Your task to perform on an android device: Do I have any events today? Image 0: 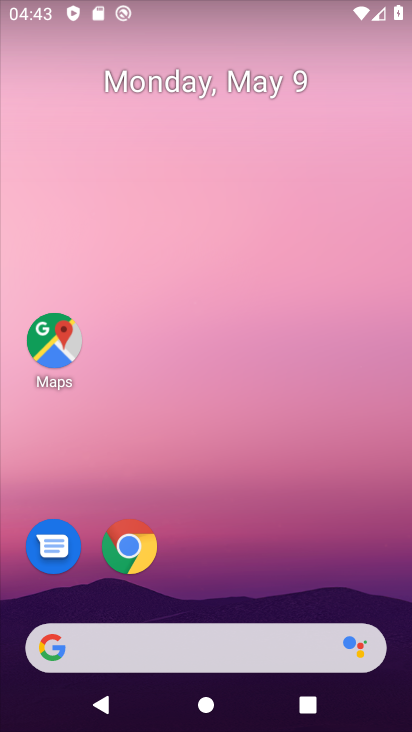
Step 0: drag from (243, 622) to (284, 190)
Your task to perform on an android device: Do I have any events today? Image 1: 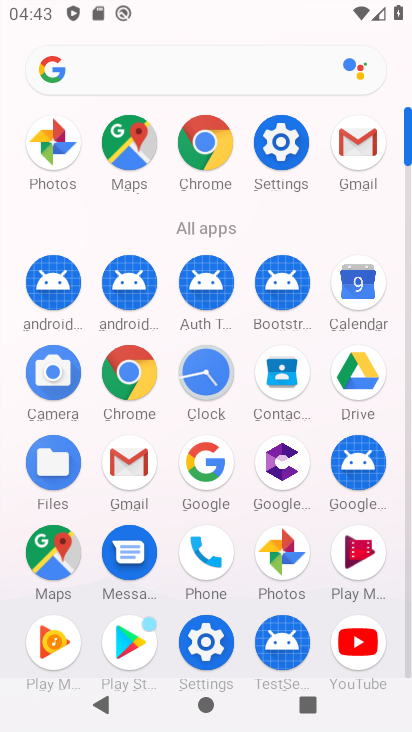
Step 1: click (360, 292)
Your task to perform on an android device: Do I have any events today? Image 2: 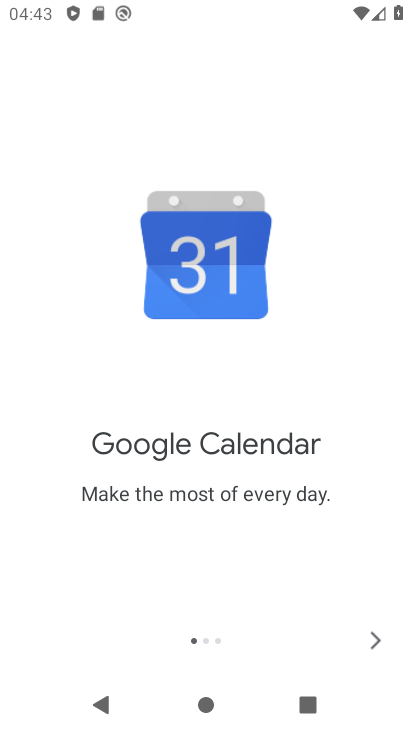
Step 2: click (366, 627)
Your task to perform on an android device: Do I have any events today? Image 3: 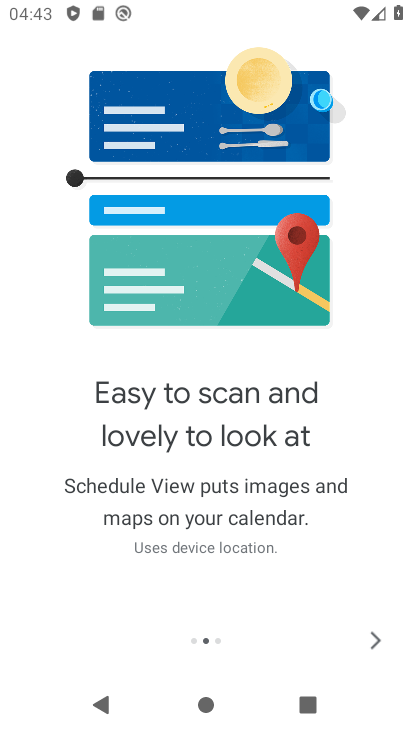
Step 3: click (367, 627)
Your task to perform on an android device: Do I have any events today? Image 4: 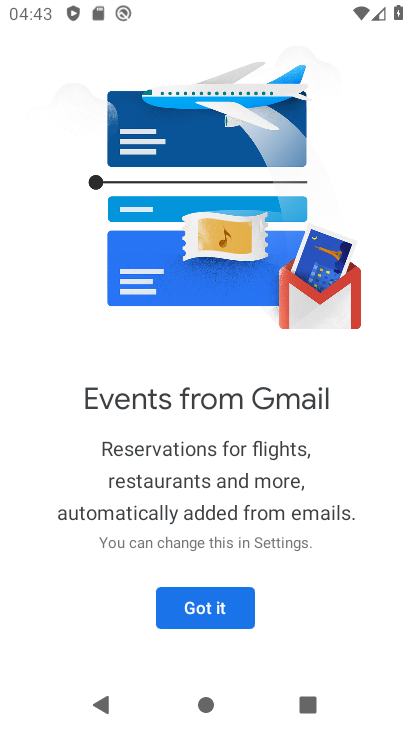
Step 4: click (367, 629)
Your task to perform on an android device: Do I have any events today? Image 5: 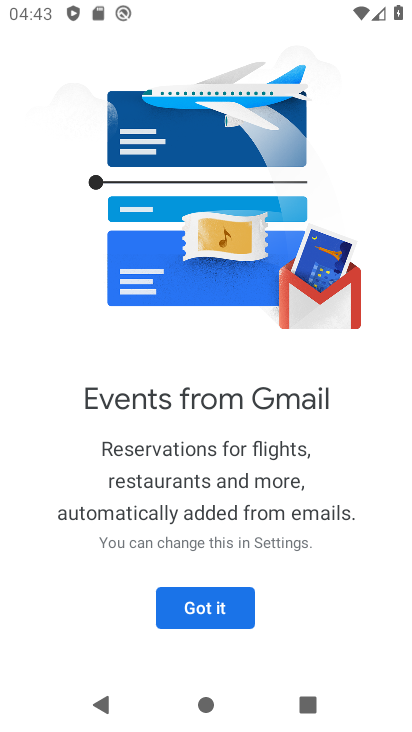
Step 5: click (203, 607)
Your task to perform on an android device: Do I have any events today? Image 6: 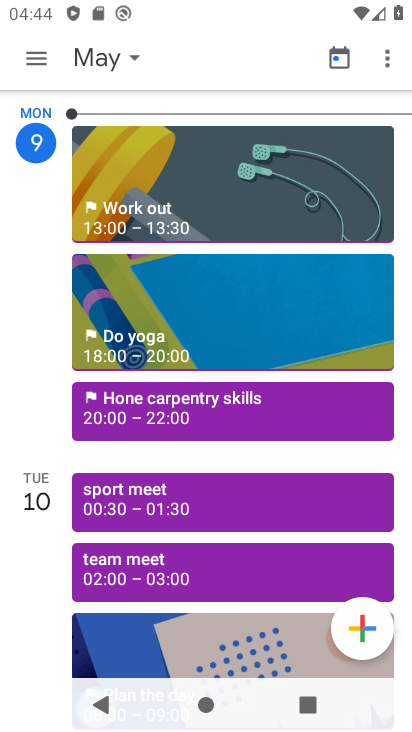
Step 6: click (37, 64)
Your task to perform on an android device: Do I have any events today? Image 7: 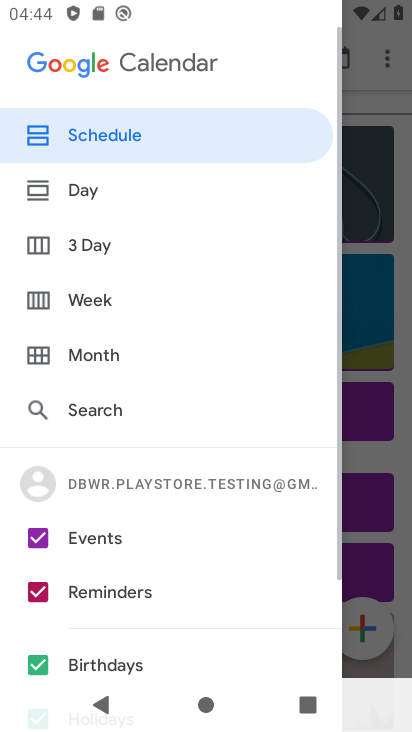
Step 7: drag from (150, 551) to (197, 246)
Your task to perform on an android device: Do I have any events today? Image 8: 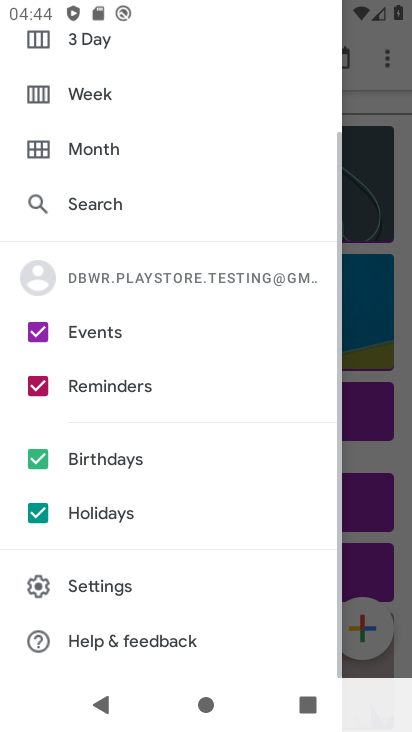
Step 8: click (77, 381)
Your task to perform on an android device: Do I have any events today? Image 9: 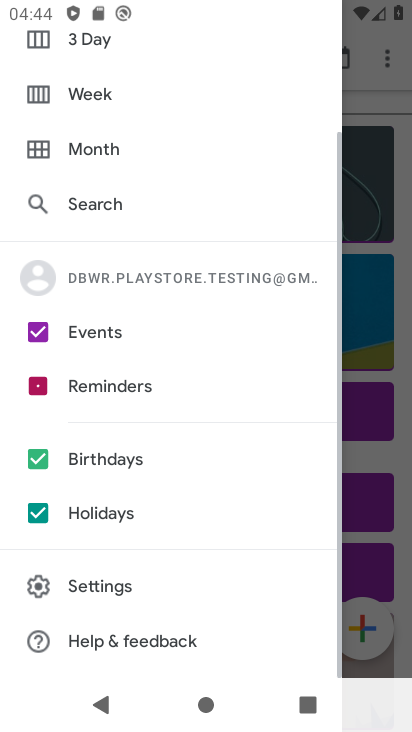
Step 9: click (76, 465)
Your task to perform on an android device: Do I have any events today? Image 10: 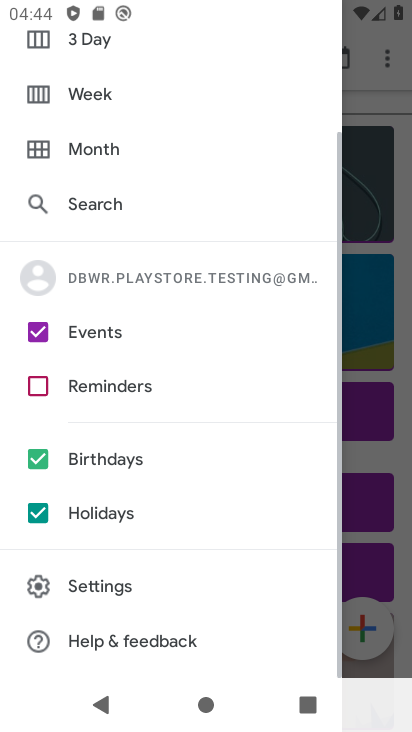
Step 10: click (71, 501)
Your task to perform on an android device: Do I have any events today? Image 11: 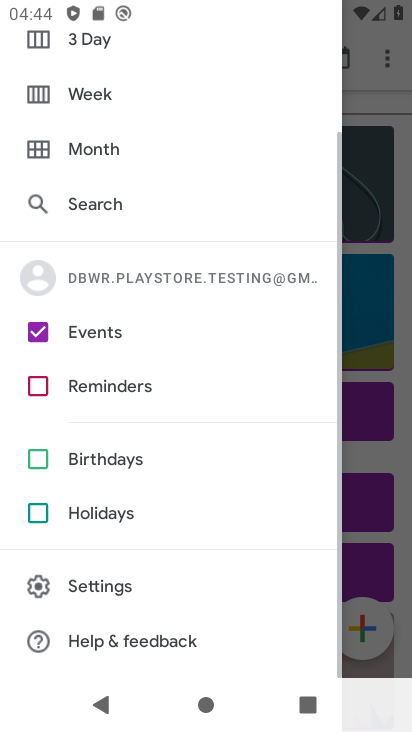
Step 11: drag from (214, 295) to (211, 574)
Your task to perform on an android device: Do I have any events today? Image 12: 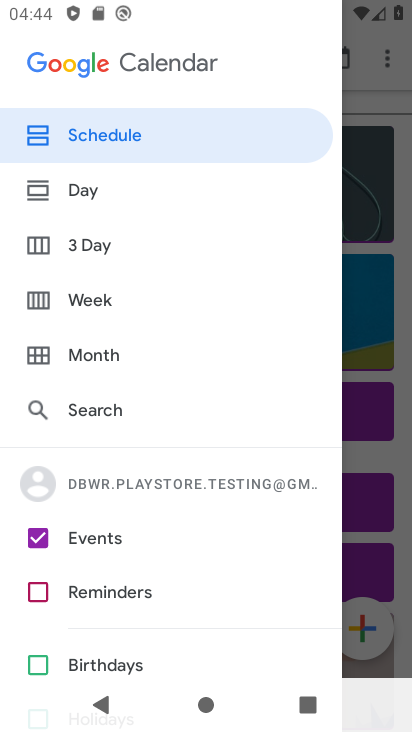
Step 12: click (99, 111)
Your task to perform on an android device: Do I have any events today? Image 13: 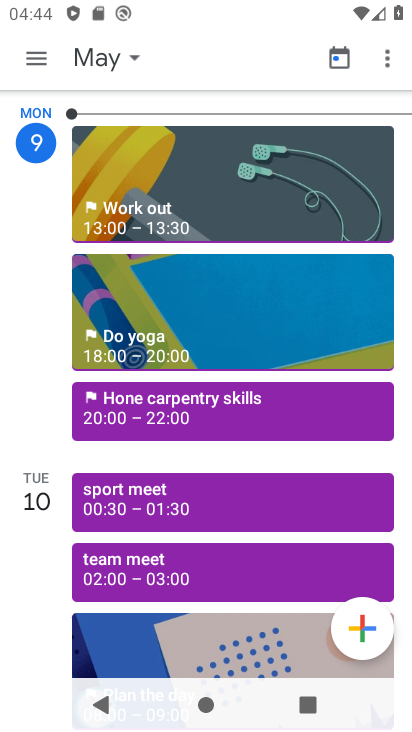
Step 13: click (46, 55)
Your task to perform on an android device: Do I have any events today? Image 14: 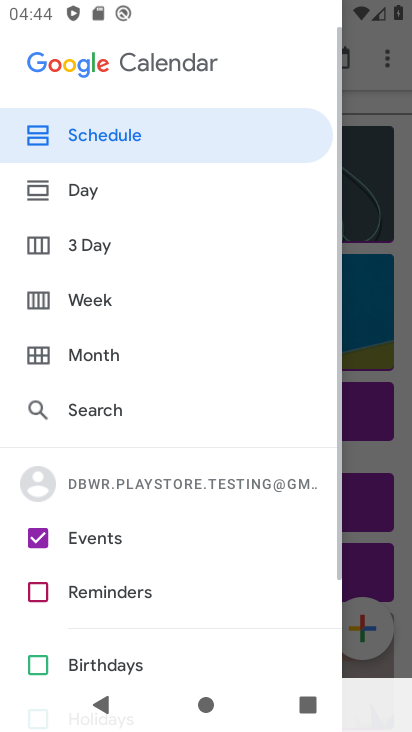
Step 14: click (121, 194)
Your task to perform on an android device: Do I have any events today? Image 15: 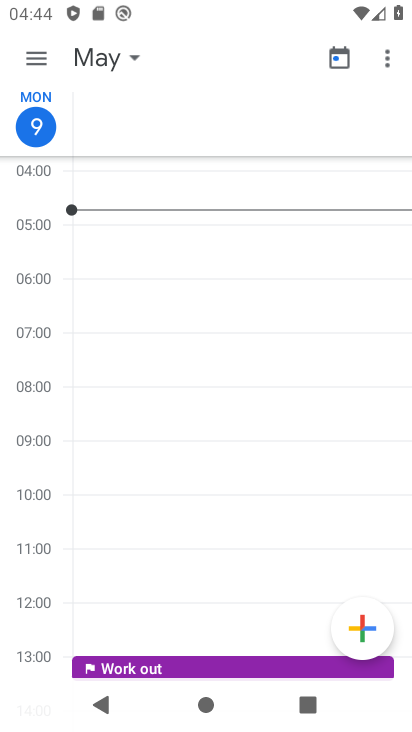
Step 15: task complete